Your task to perform on an android device: turn notification dots on Image 0: 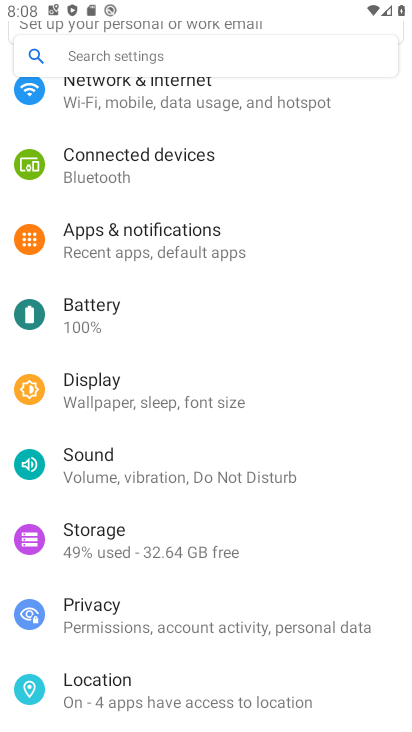
Step 0: click (276, 238)
Your task to perform on an android device: turn notification dots on Image 1: 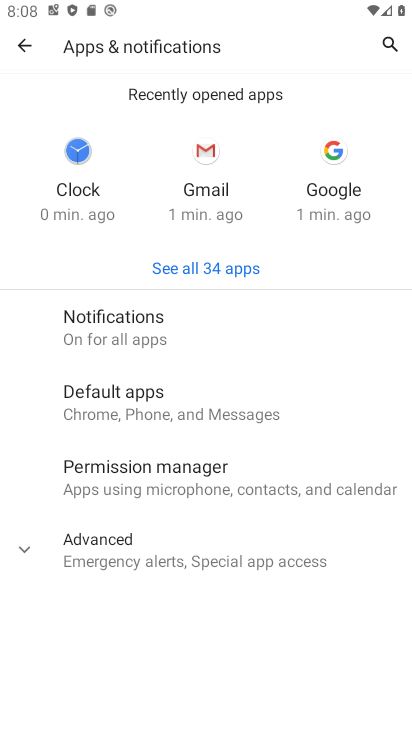
Step 1: click (163, 336)
Your task to perform on an android device: turn notification dots on Image 2: 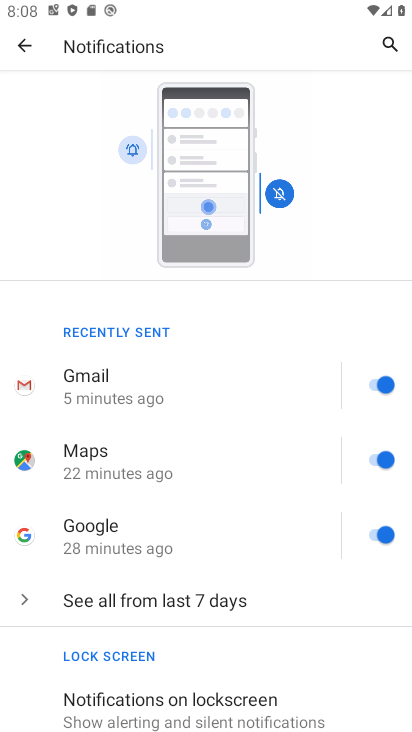
Step 2: drag from (222, 634) to (202, 281)
Your task to perform on an android device: turn notification dots on Image 3: 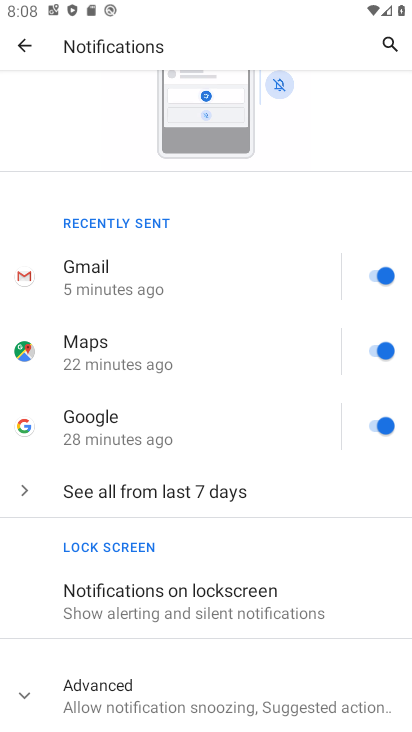
Step 3: click (145, 698)
Your task to perform on an android device: turn notification dots on Image 4: 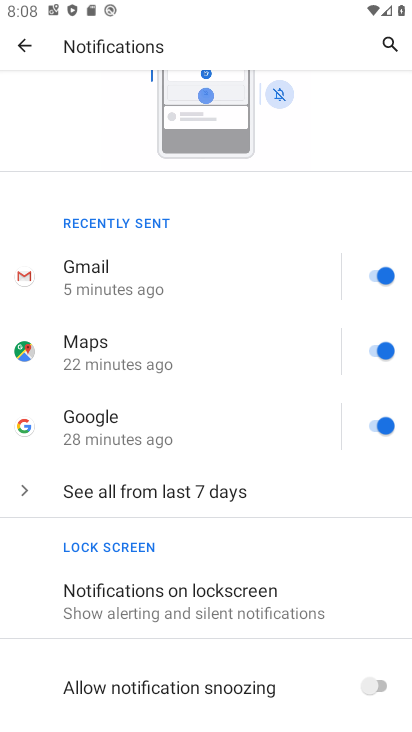
Step 4: drag from (246, 647) to (241, 291)
Your task to perform on an android device: turn notification dots on Image 5: 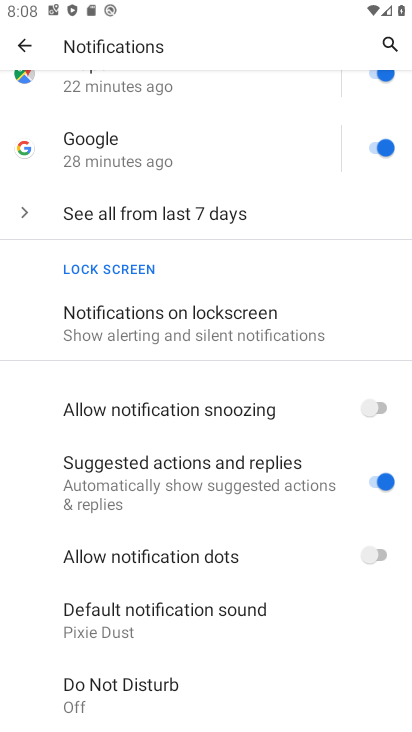
Step 5: click (383, 556)
Your task to perform on an android device: turn notification dots on Image 6: 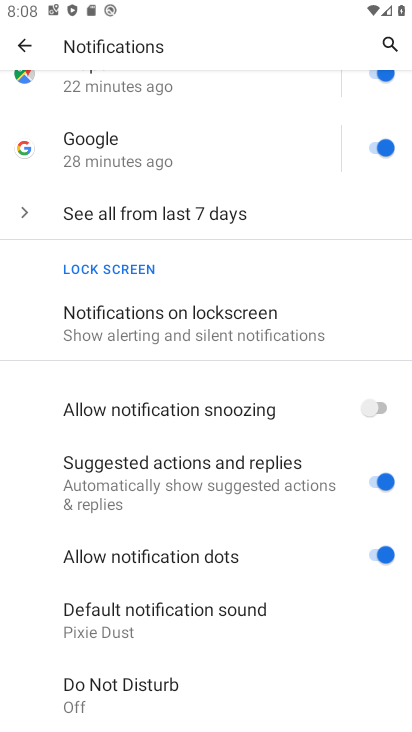
Step 6: task complete